Your task to perform on an android device: Install the Uber app Image 0: 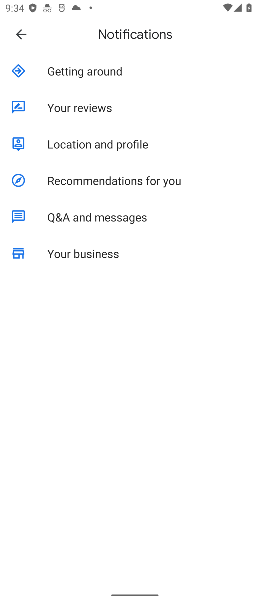
Step 0: press home button
Your task to perform on an android device: Install the Uber app Image 1: 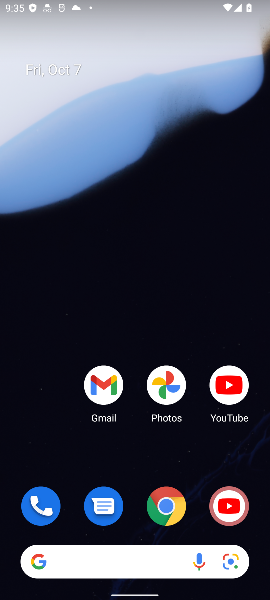
Step 1: drag from (155, 569) to (125, 237)
Your task to perform on an android device: Install the Uber app Image 2: 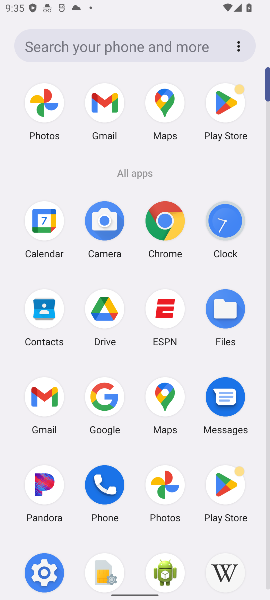
Step 2: click (228, 103)
Your task to perform on an android device: Install the Uber app Image 3: 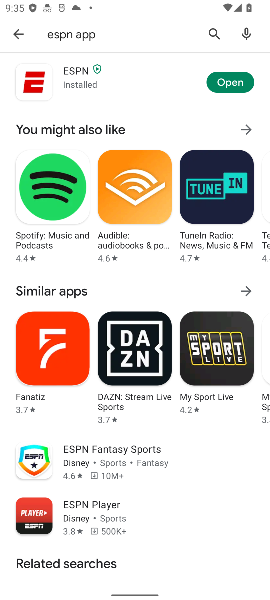
Step 3: click (213, 30)
Your task to perform on an android device: Install the Uber app Image 4: 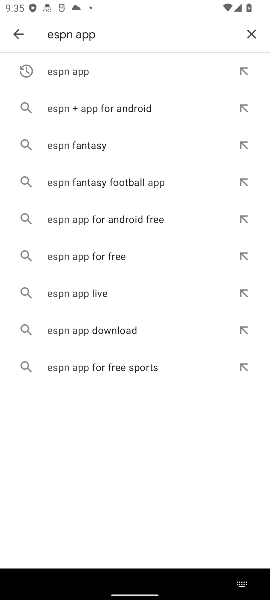
Step 4: click (252, 33)
Your task to perform on an android device: Install the Uber app Image 5: 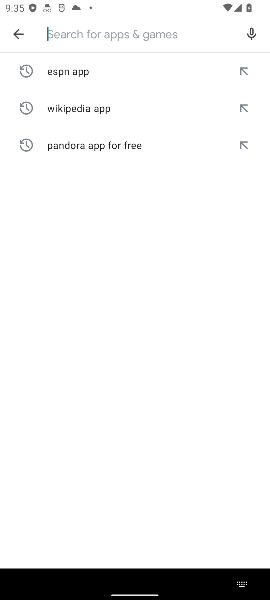
Step 5: type "Uber app"
Your task to perform on an android device: Install the Uber app Image 6: 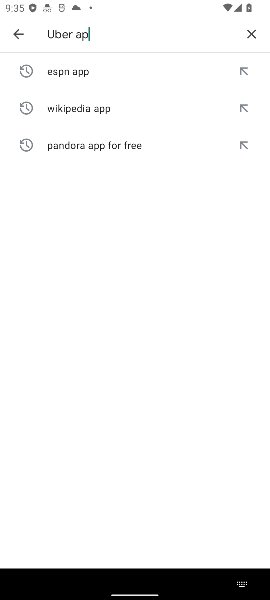
Step 6: press enter
Your task to perform on an android device: Install the Uber app Image 7: 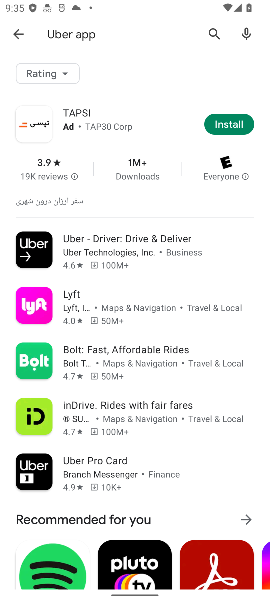
Step 7: click (86, 240)
Your task to perform on an android device: Install the Uber app Image 8: 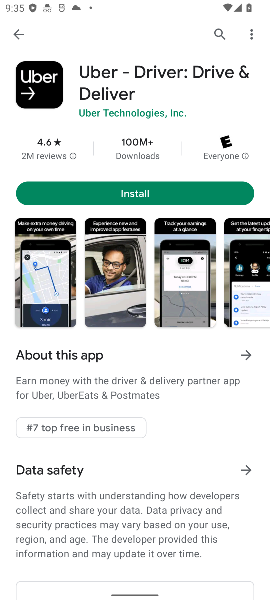
Step 8: drag from (51, 493) to (117, 477)
Your task to perform on an android device: Install the Uber app Image 9: 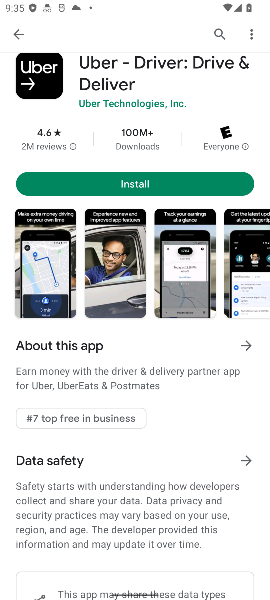
Step 9: drag from (172, 328) to (108, 462)
Your task to perform on an android device: Install the Uber app Image 10: 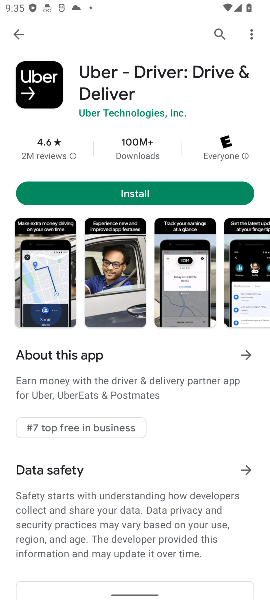
Step 10: click (141, 191)
Your task to perform on an android device: Install the Uber app Image 11: 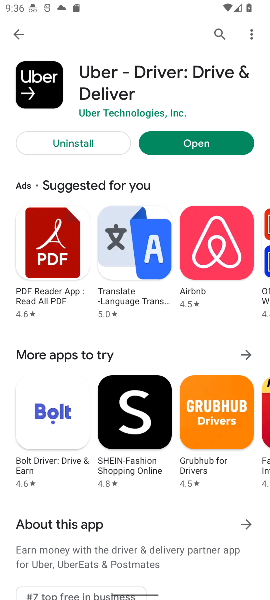
Step 11: task complete